Your task to perform on an android device: Turn on the flashlight Image 0: 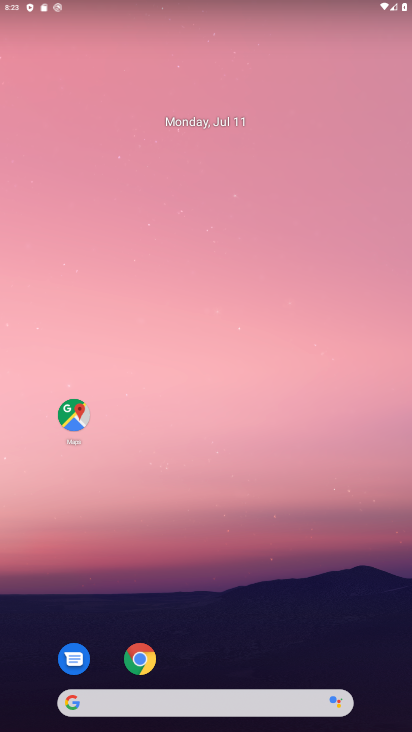
Step 0: drag from (235, 447) to (233, 715)
Your task to perform on an android device: Turn on the flashlight Image 1: 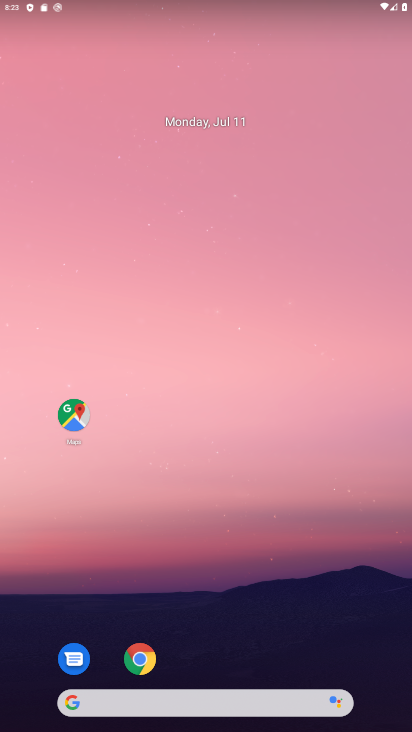
Step 1: drag from (221, 80) to (181, 627)
Your task to perform on an android device: Turn on the flashlight Image 2: 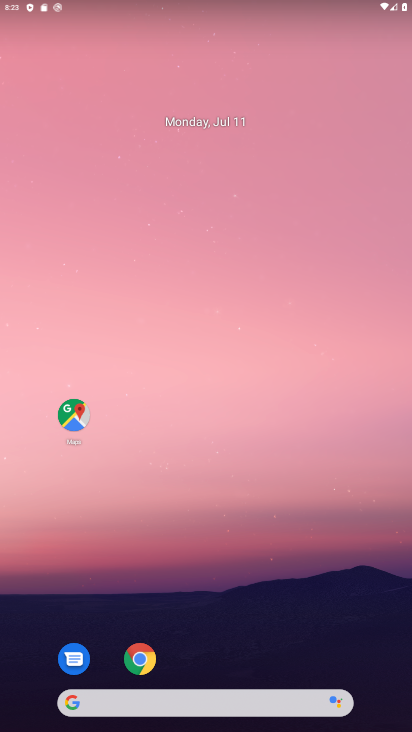
Step 2: drag from (35, 685) to (373, 64)
Your task to perform on an android device: Turn on the flashlight Image 3: 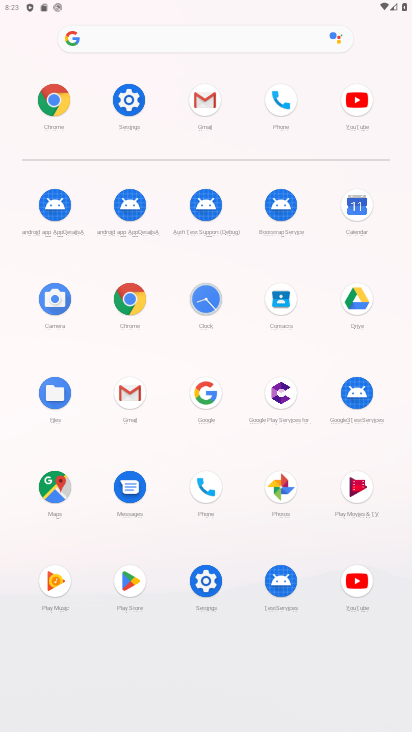
Step 3: click (213, 587)
Your task to perform on an android device: Turn on the flashlight Image 4: 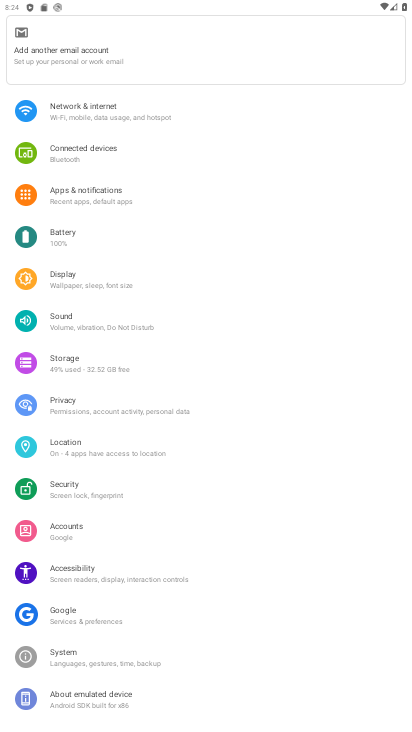
Step 4: click (84, 570)
Your task to perform on an android device: Turn on the flashlight Image 5: 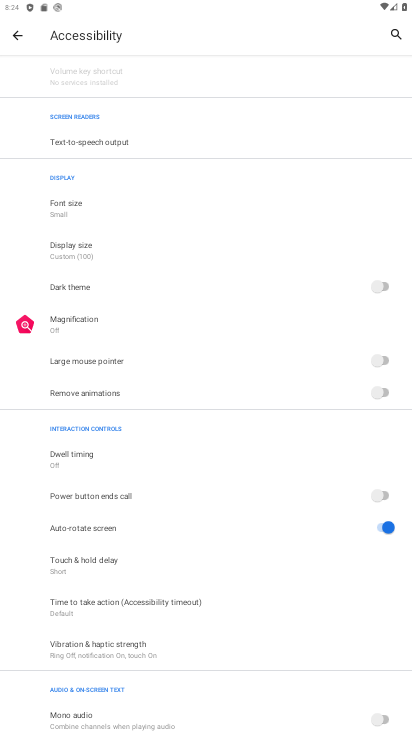
Step 5: task complete